Your task to perform on an android device: move a message to another label in the gmail app Image 0: 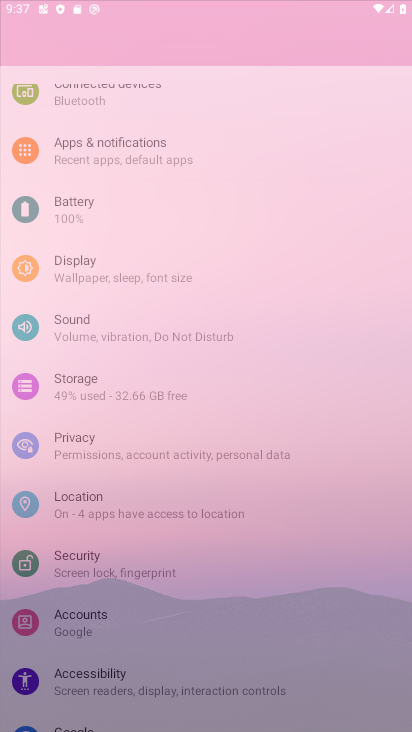
Step 0: click (268, 191)
Your task to perform on an android device: move a message to another label in the gmail app Image 1: 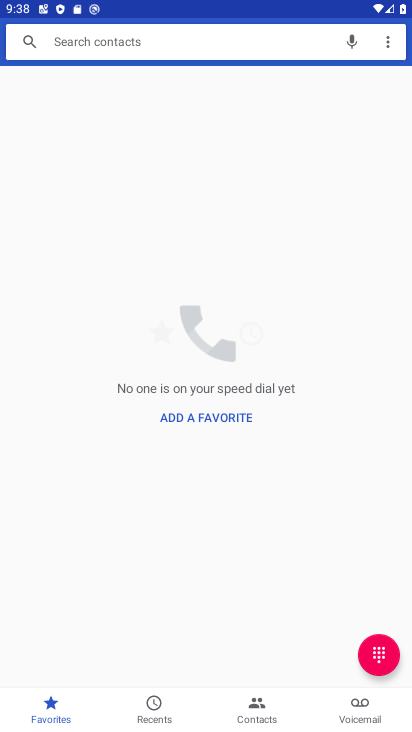
Step 1: press back button
Your task to perform on an android device: move a message to another label in the gmail app Image 2: 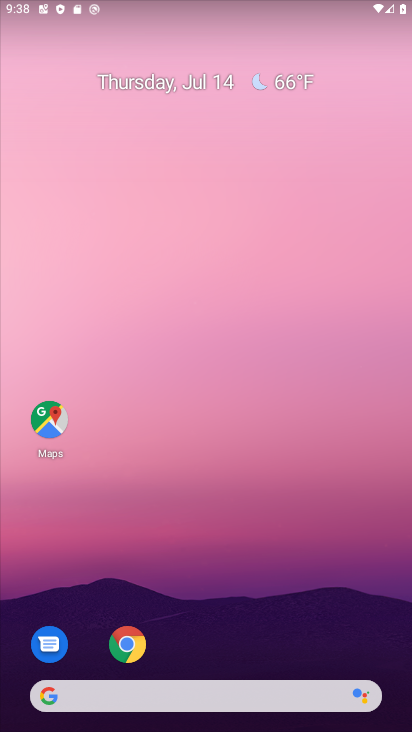
Step 2: drag from (273, 693) to (194, 252)
Your task to perform on an android device: move a message to another label in the gmail app Image 3: 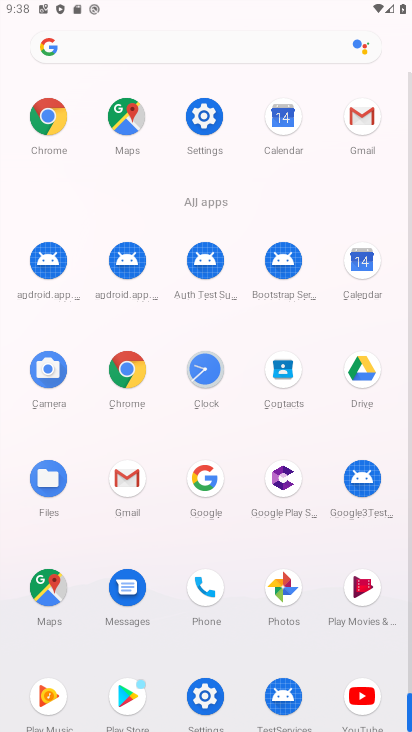
Step 3: click (117, 483)
Your task to perform on an android device: move a message to another label in the gmail app Image 4: 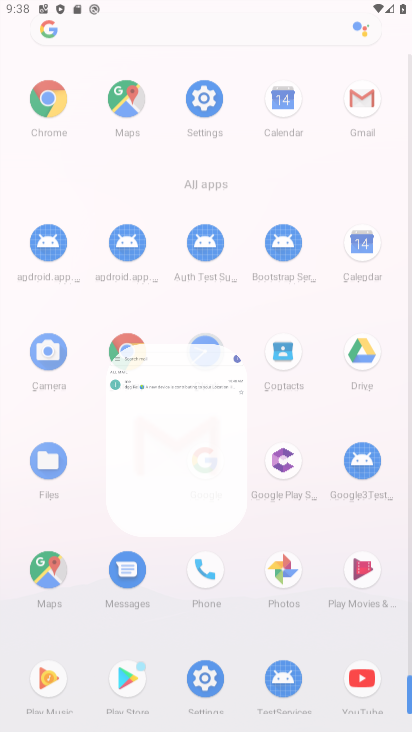
Step 4: click (115, 485)
Your task to perform on an android device: move a message to another label in the gmail app Image 5: 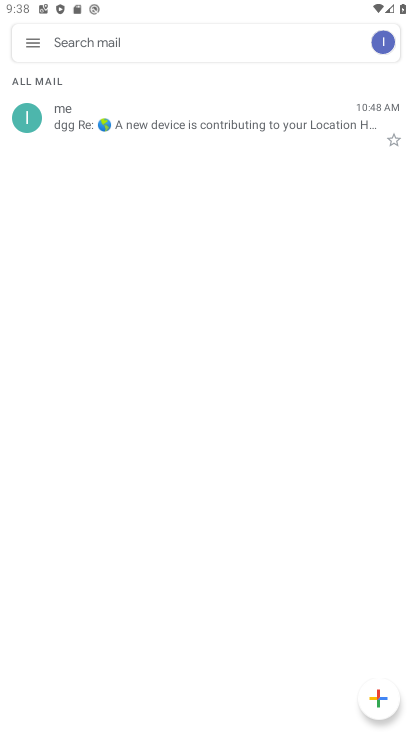
Step 5: click (32, 42)
Your task to perform on an android device: move a message to another label in the gmail app Image 6: 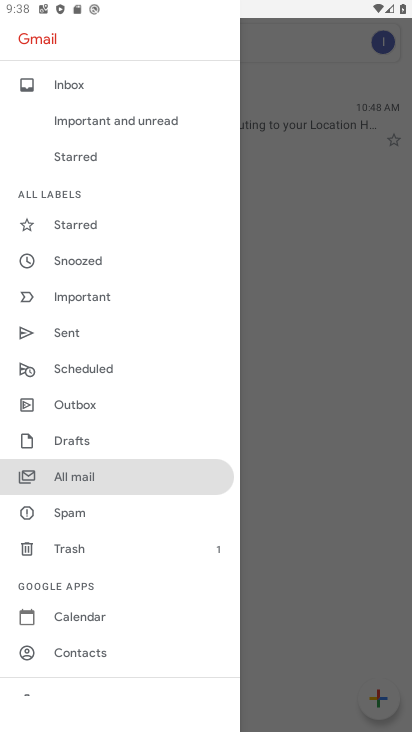
Step 6: click (59, 465)
Your task to perform on an android device: move a message to another label in the gmail app Image 7: 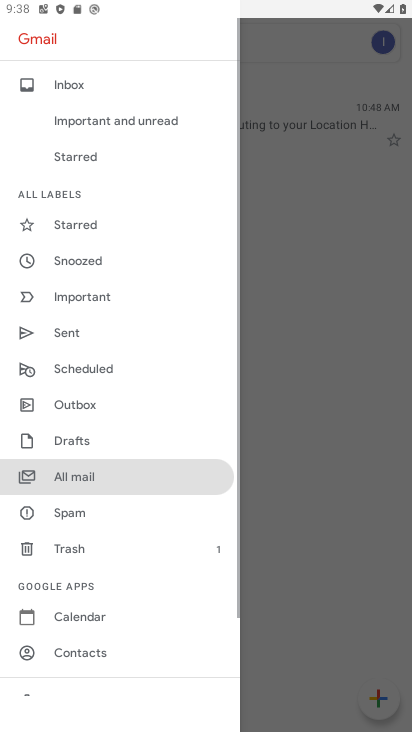
Step 7: click (61, 469)
Your task to perform on an android device: move a message to another label in the gmail app Image 8: 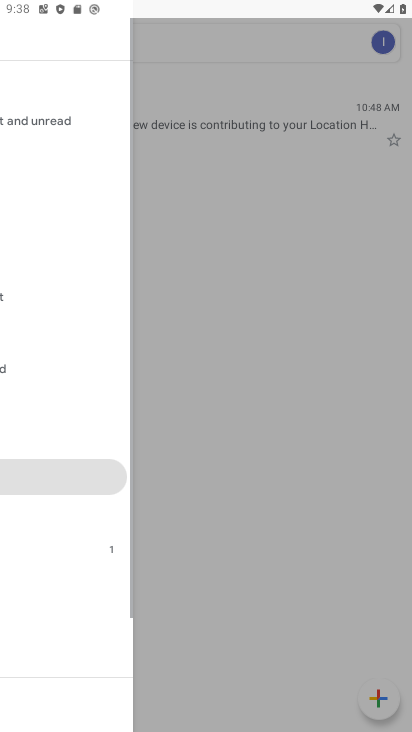
Step 8: click (76, 476)
Your task to perform on an android device: move a message to another label in the gmail app Image 9: 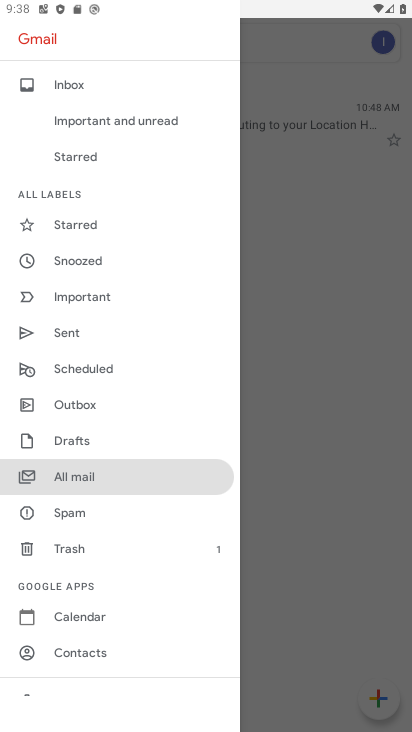
Step 9: click (118, 471)
Your task to perform on an android device: move a message to another label in the gmail app Image 10: 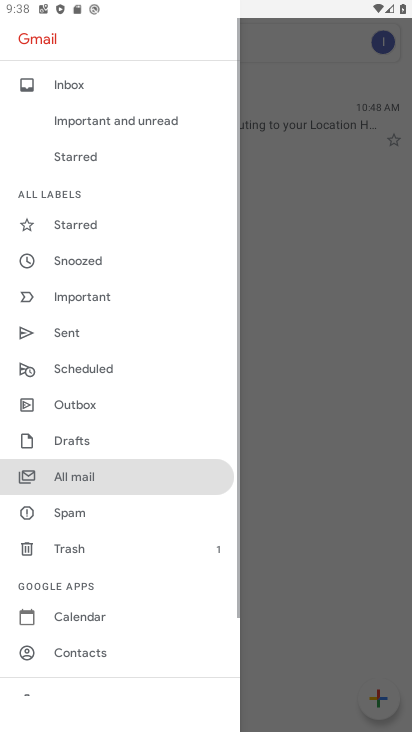
Step 10: click (118, 471)
Your task to perform on an android device: move a message to another label in the gmail app Image 11: 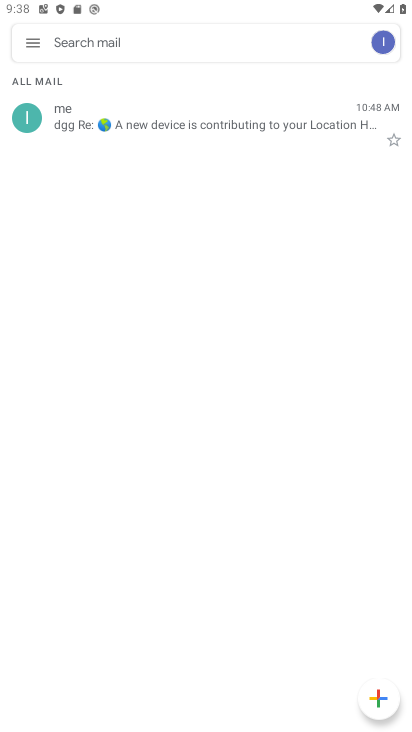
Step 11: click (124, 469)
Your task to perform on an android device: move a message to another label in the gmail app Image 12: 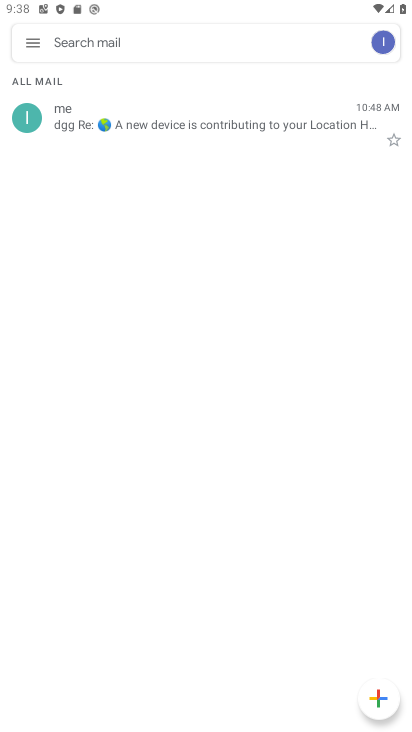
Step 12: click (246, 125)
Your task to perform on an android device: move a message to another label in the gmail app Image 13: 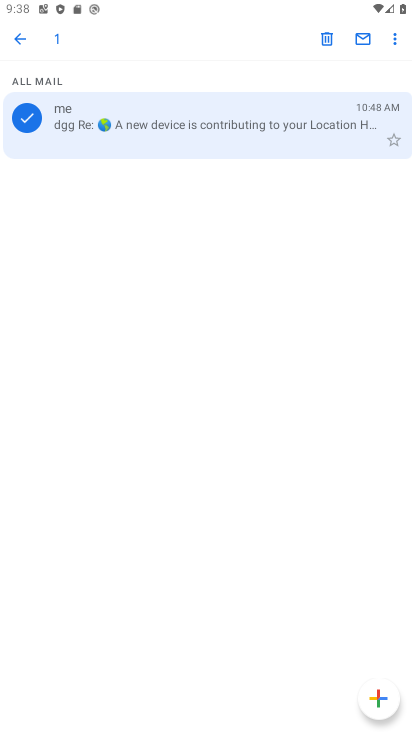
Step 13: click (393, 44)
Your task to perform on an android device: move a message to another label in the gmail app Image 14: 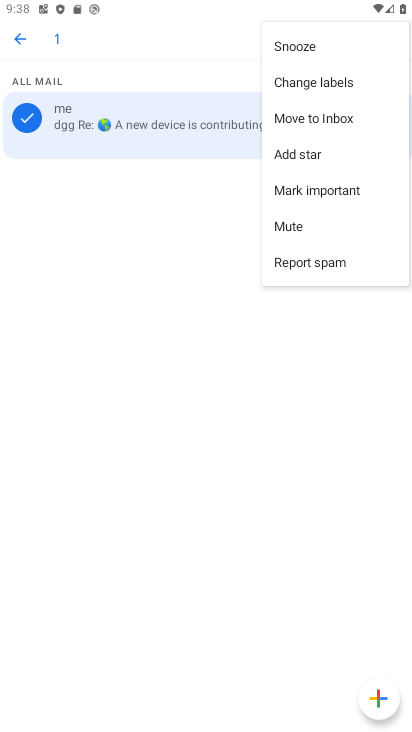
Step 14: click (292, 147)
Your task to perform on an android device: move a message to another label in the gmail app Image 15: 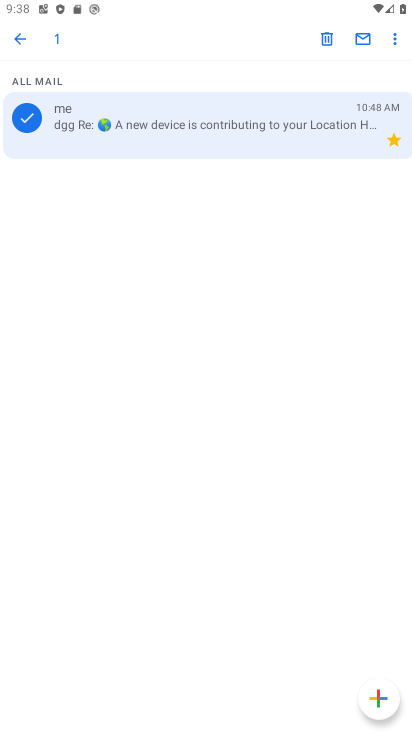
Step 15: task complete